Your task to perform on an android device: Open Google Image 0: 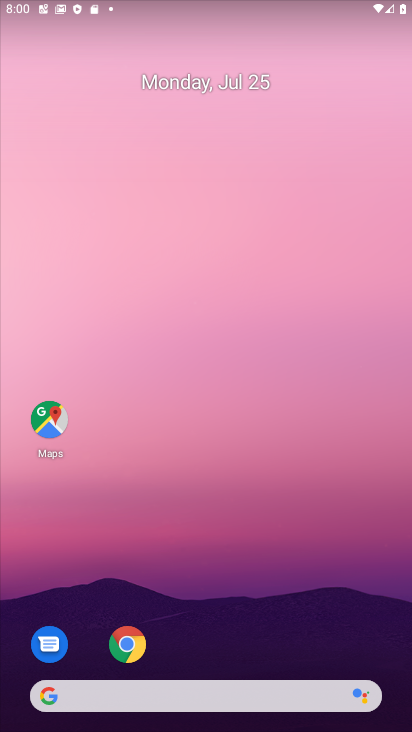
Step 0: drag from (251, 497) to (258, 129)
Your task to perform on an android device: Open Google Image 1: 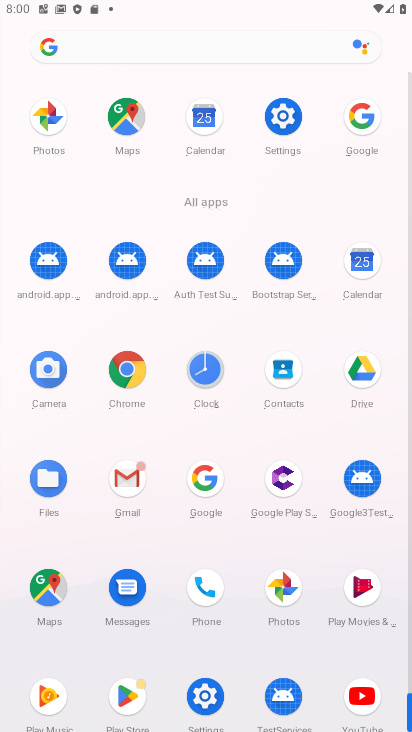
Step 1: click (203, 473)
Your task to perform on an android device: Open Google Image 2: 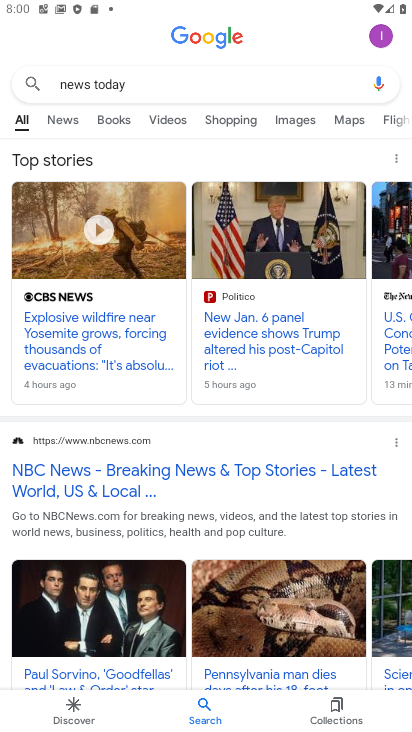
Step 2: task complete